Your task to perform on an android device: Show the shopping cart on newegg.com. Search for "asus zenbook" on newegg.com, select the first entry, add it to the cart, then select checkout. Image 0: 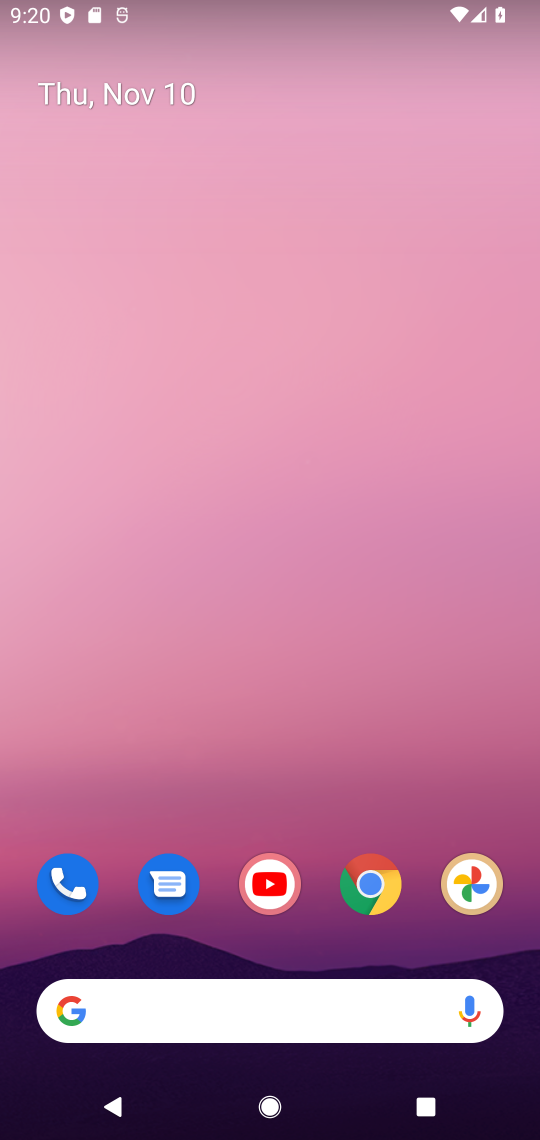
Step 0: click (311, 1002)
Your task to perform on an android device: Show the shopping cart on newegg.com. Search for "asus zenbook" on newegg.com, select the first entry, add it to the cart, then select checkout. Image 1: 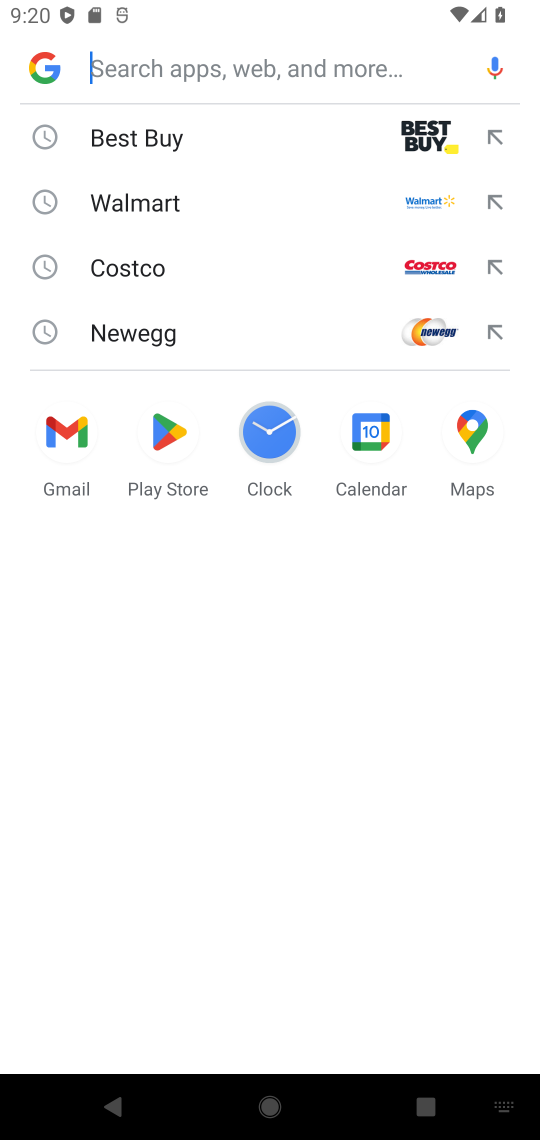
Step 1: click (168, 325)
Your task to perform on an android device: Show the shopping cart on newegg.com. Search for "asus zenbook" on newegg.com, select the first entry, add it to the cart, then select checkout. Image 2: 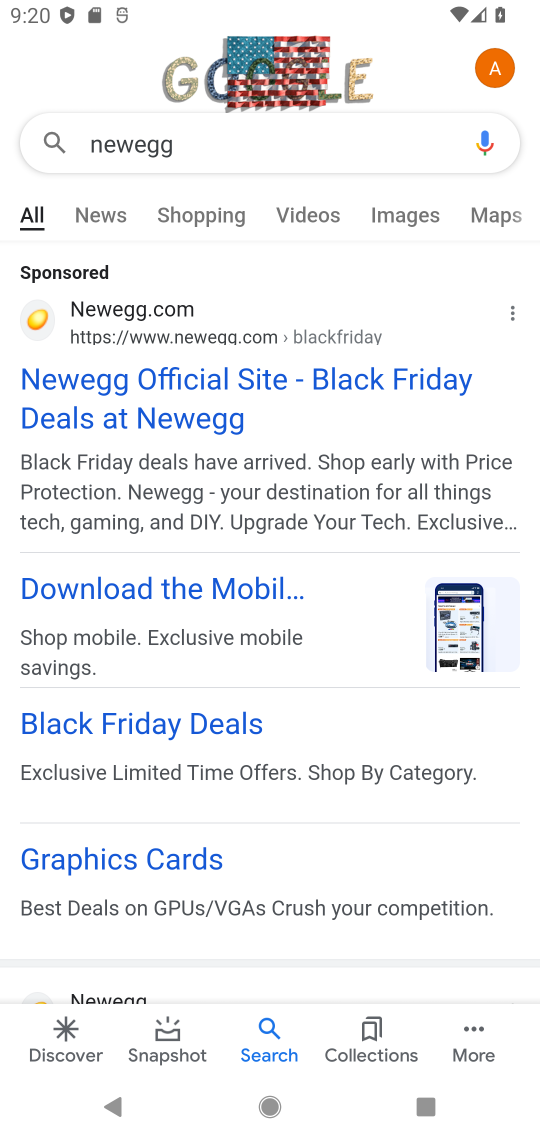
Step 2: click (135, 304)
Your task to perform on an android device: Show the shopping cart on newegg.com. Search for "asus zenbook" on newegg.com, select the first entry, add it to the cart, then select checkout. Image 3: 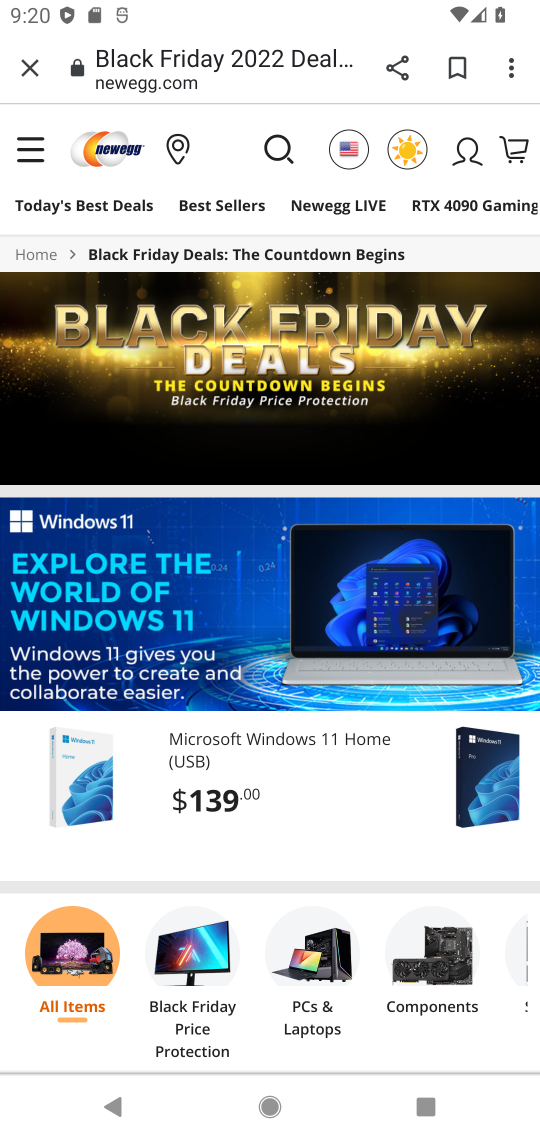
Step 3: click (273, 151)
Your task to perform on an android device: Show the shopping cart on newegg.com. Search for "asus zenbook" on newegg.com, select the first entry, add it to the cart, then select checkout. Image 4: 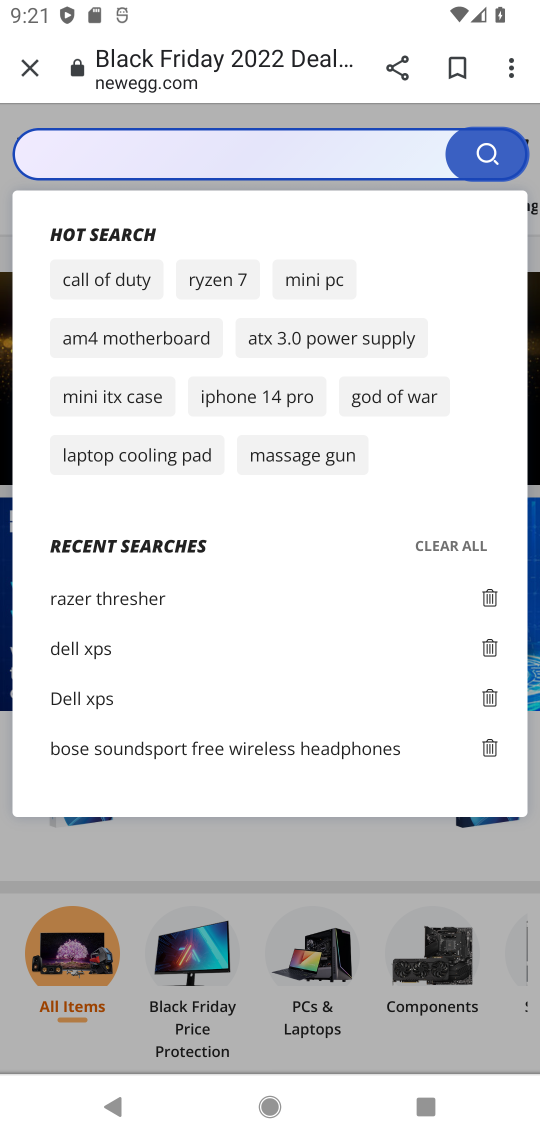
Step 4: click (245, 151)
Your task to perform on an android device: Show the shopping cart on newegg.com. Search for "asus zenbook" on newegg.com, select the first entry, add it to the cart, then select checkout. Image 5: 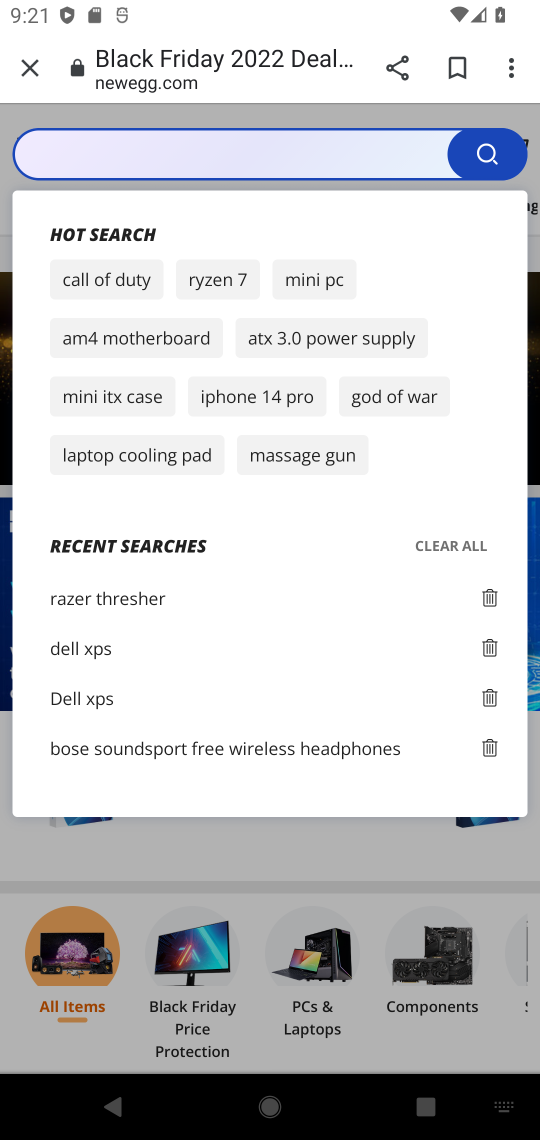
Step 5: click (332, 124)
Your task to perform on an android device: Show the shopping cart on newegg.com. Search for "asus zenbook" on newegg.com, select the first entry, add it to the cart, then select checkout. Image 6: 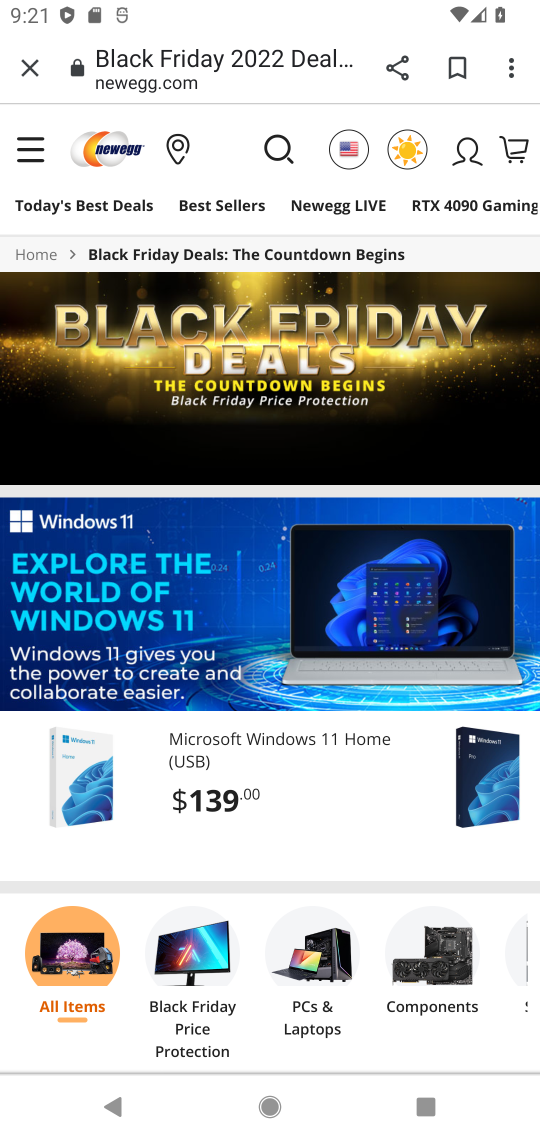
Step 6: click (517, 148)
Your task to perform on an android device: Show the shopping cart on newegg.com. Search for "asus zenbook" on newegg.com, select the first entry, add it to the cart, then select checkout. Image 7: 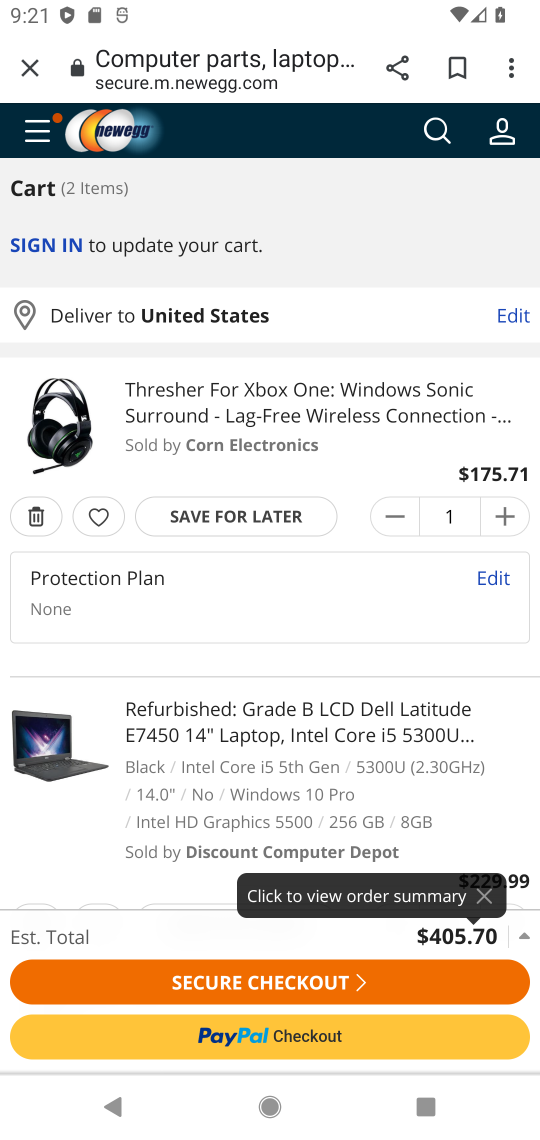
Step 7: click (436, 134)
Your task to perform on an android device: Show the shopping cart on newegg.com. Search for "asus zenbook" on newegg.com, select the first entry, add it to the cart, then select checkout. Image 8: 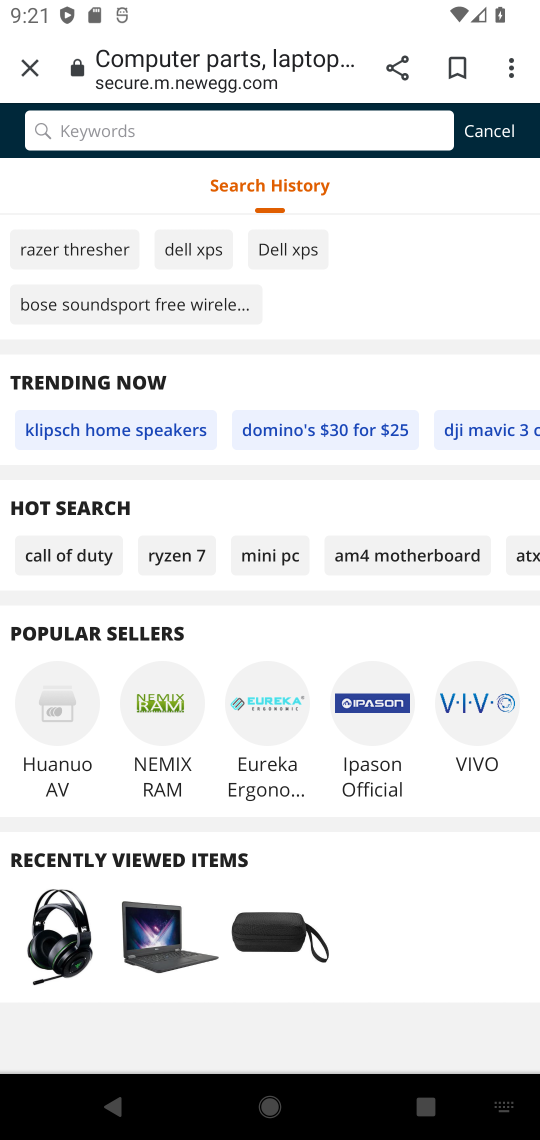
Step 8: type "asus zenbook"
Your task to perform on an android device: Show the shopping cart on newegg.com. Search for "asus zenbook" on newegg.com, select the first entry, add it to the cart, then select checkout. Image 9: 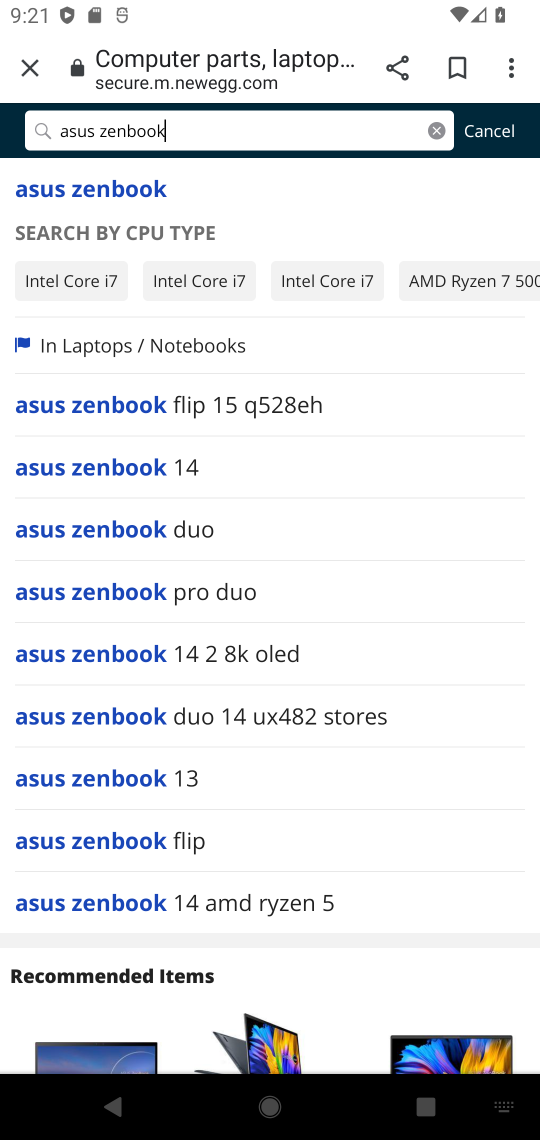
Step 9: click (55, 196)
Your task to perform on an android device: Show the shopping cart on newegg.com. Search for "asus zenbook" on newegg.com, select the first entry, add it to the cart, then select checkout. Image 10: 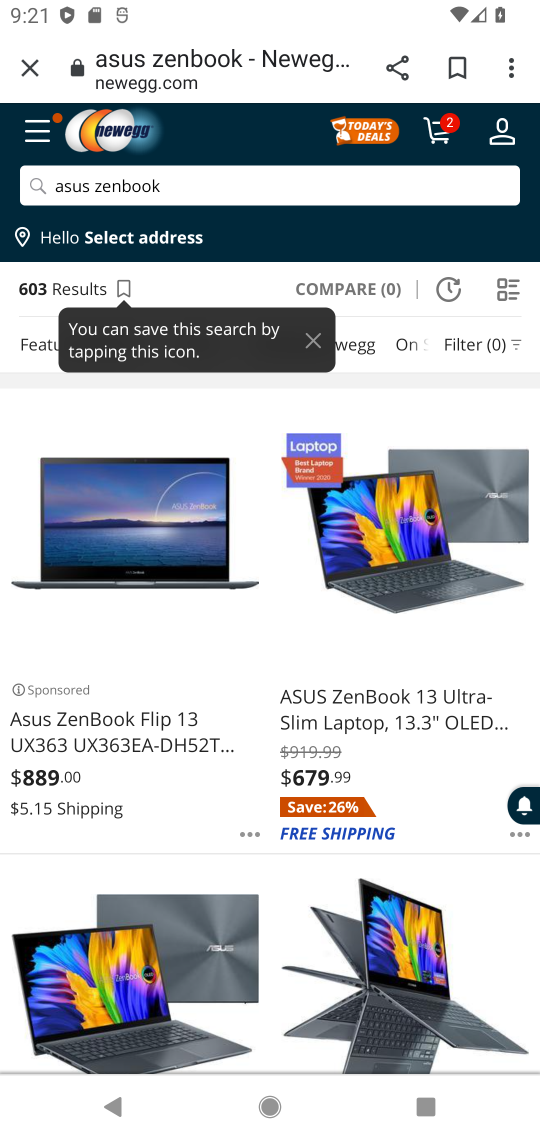
Step 10: click (120, 570)
Your task to perform on an android device: Show the shopping cart on newegg.com. Search for "asus zenbook" on newegg.com, select the first entry, add it to the cart, then select checkout. Image 11: 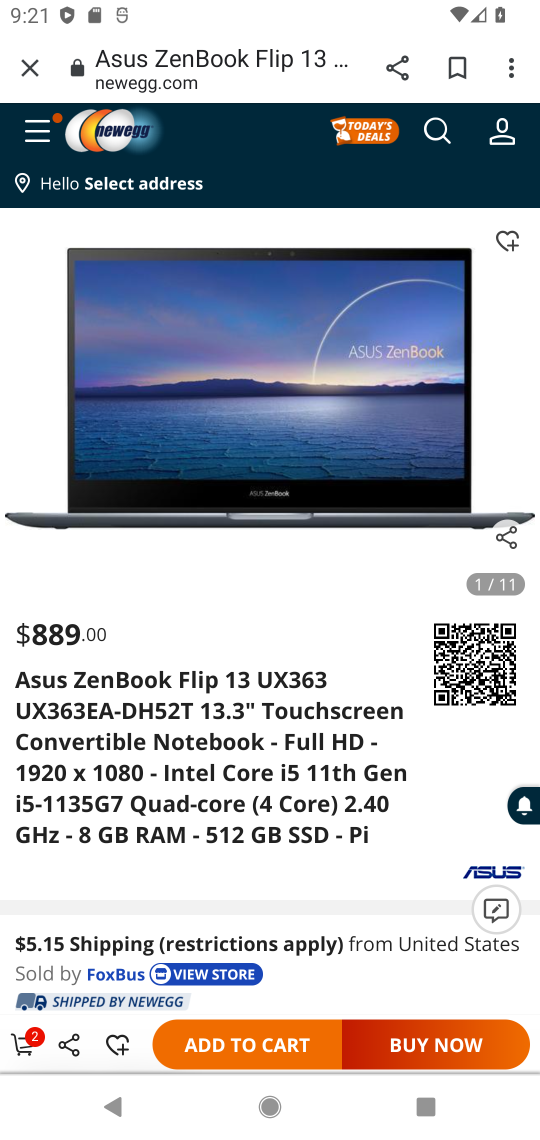
Step 11: click (276, 1034)
Your task to perform on an android device: Show the shopping cart on newegg.com. Search for "asus zenbook" on newegg.com, select the first entry, add it to the cart, then select checkout. Image 12: 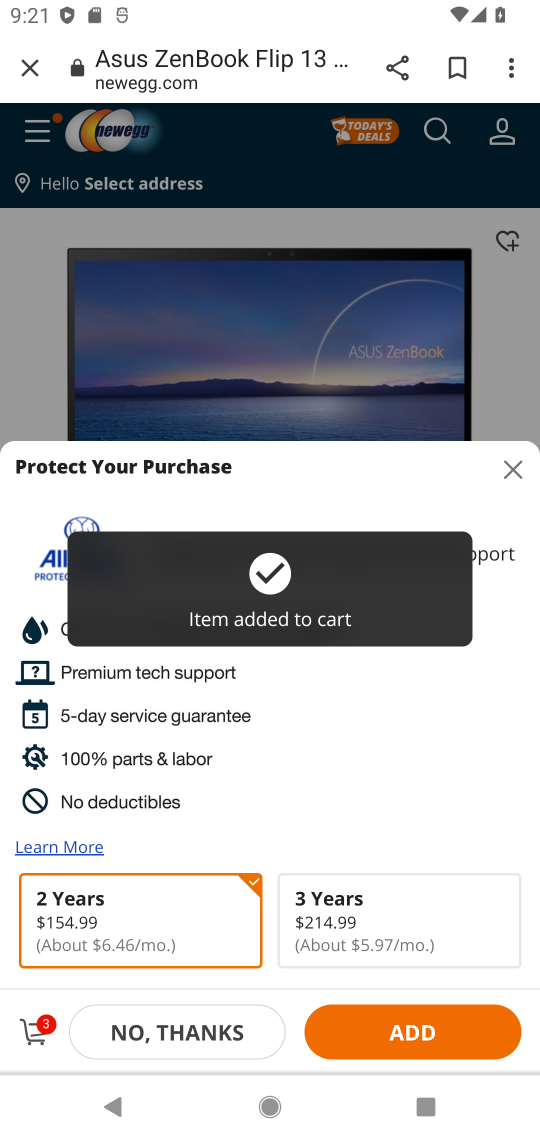
Step 12: click (26, 1044)
Your task to perform on an android device: Show the shopping cart on newegg.com. Search for "asus zenbook" on newegg.com, select the first entry, add it to the cart, then select checkout. Image 13: 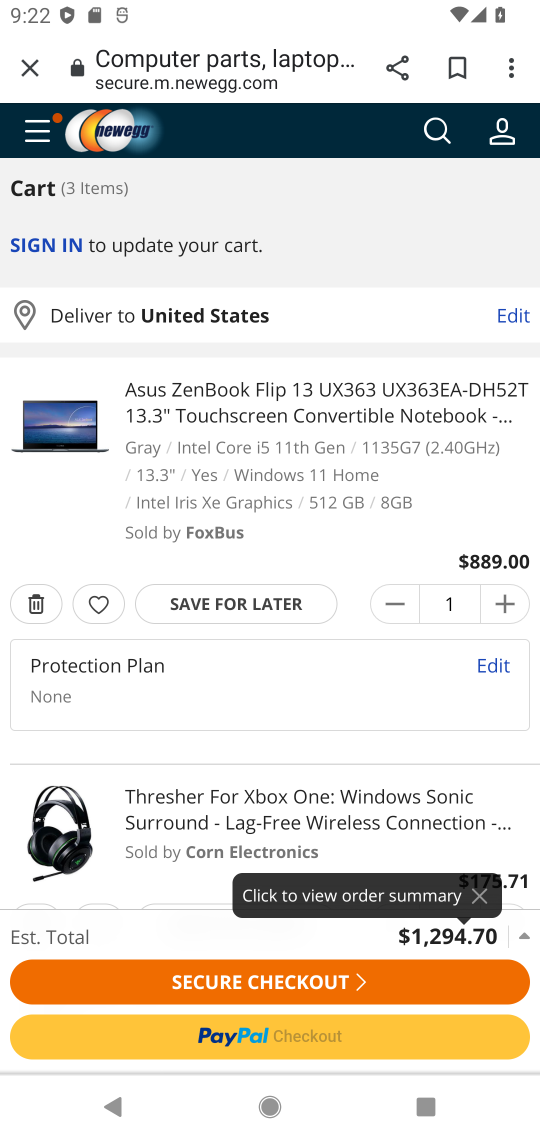
Step 13: click (276, 978)
Your task to perform on an android device: Show the shopping cart on newegg.com. Search for "asus zenbook" on newegg.com, select the first entry, add it to the cart, then select checkout. Image 14: 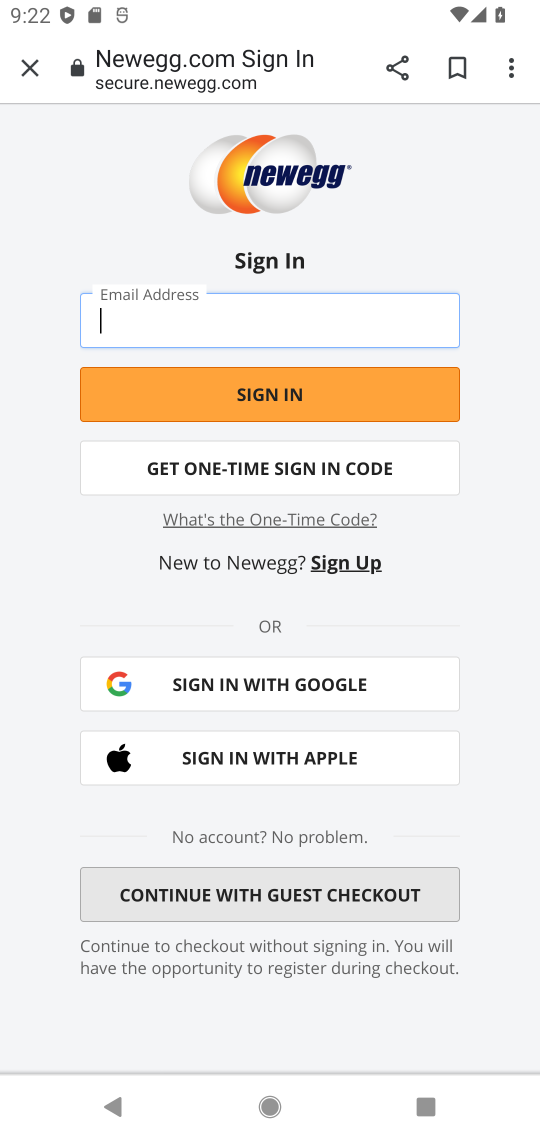
Step 14: task complete